Your task to perform on an android device: open app "Expedia: Hotels, Flights & Car" Image 0: 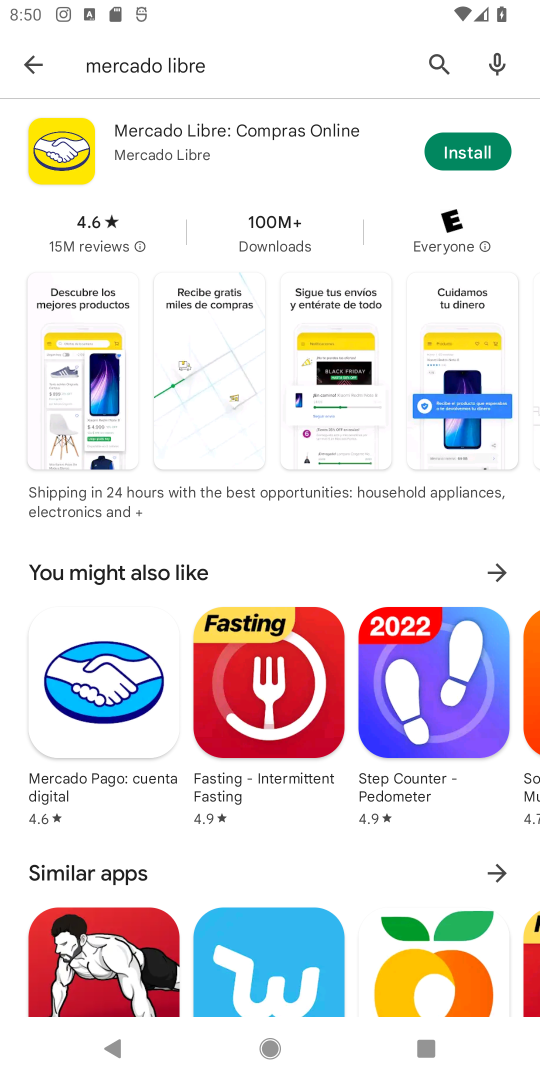
Step 0: click (432, 65)
Your task to perform on an android device: open app "Expedia: Hotels, Flights & Car" Image 1: 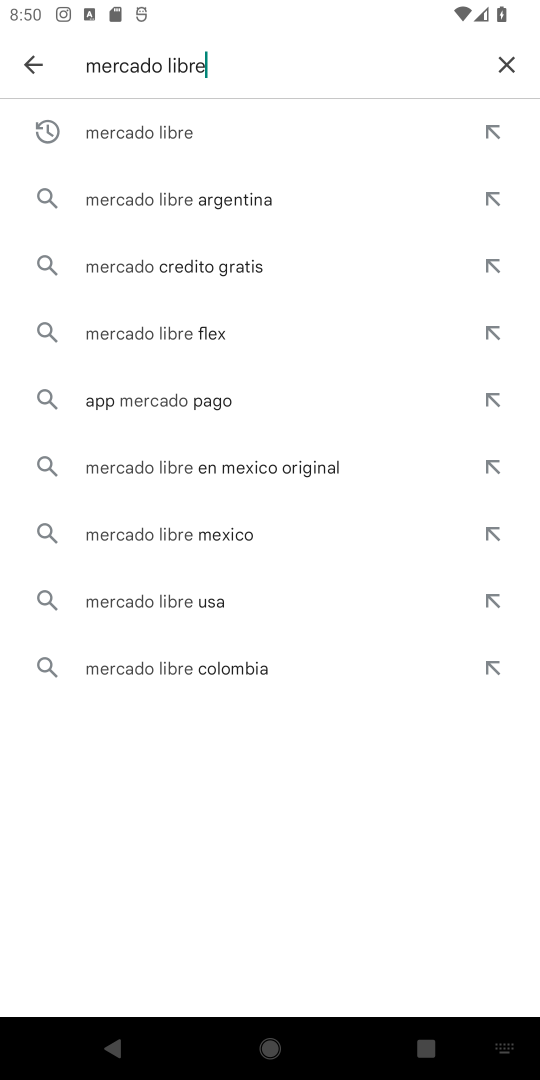
Step 1: click (497, 69)
Your task to perform on an android device: open app "Expedia: Hotels, Flights & Car" Image 2: 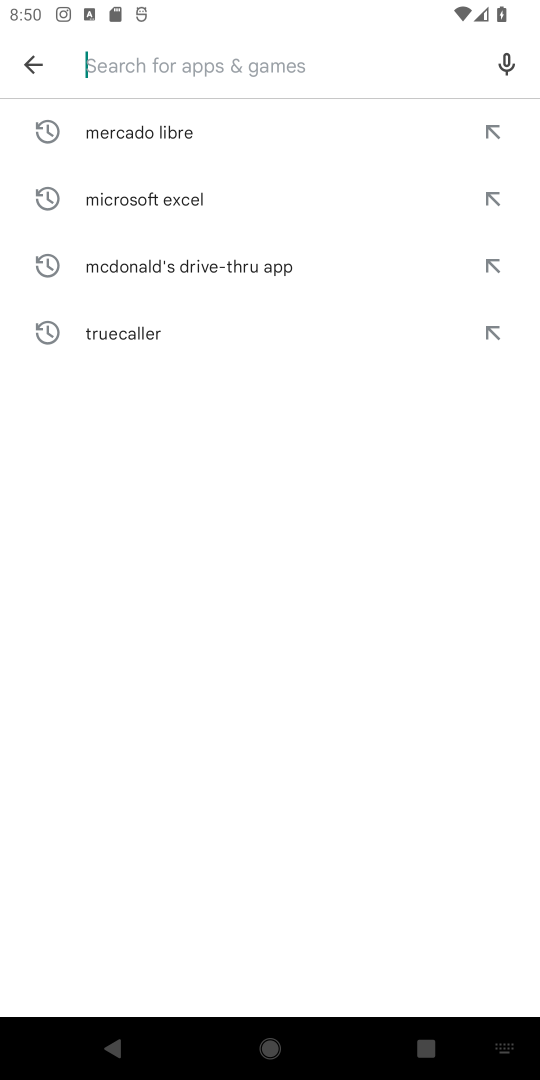
Step 2: type "Expedia: Hotels, Flights & Car"
Your task to perform on an android device: open app "Expedia: Hotels, Flights & Car" Image 3: 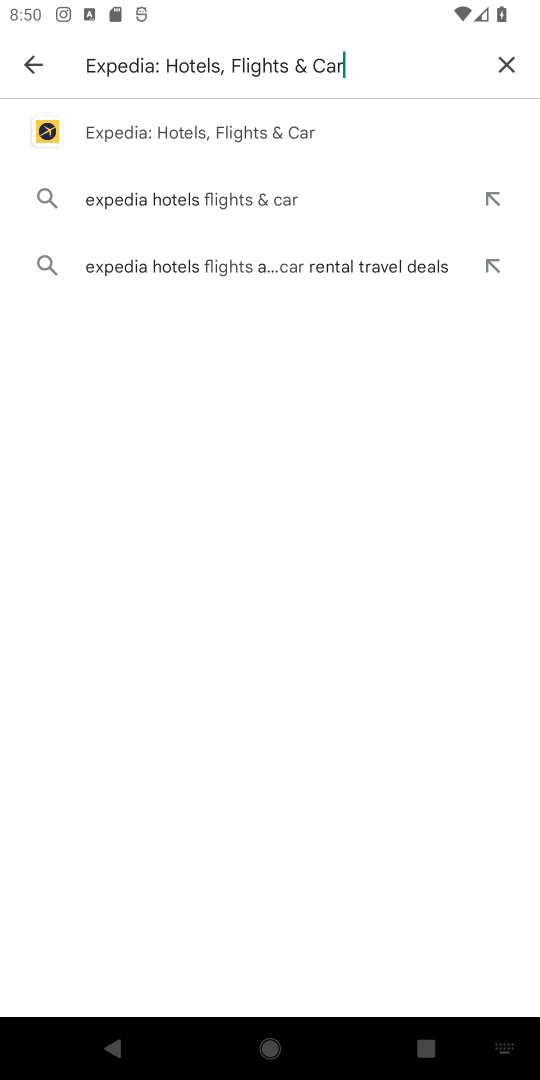
Step 3: click (172, 136)
Your task to perform on an android device: open app "Expedia: Hotels, Flights & Car" Image 4: 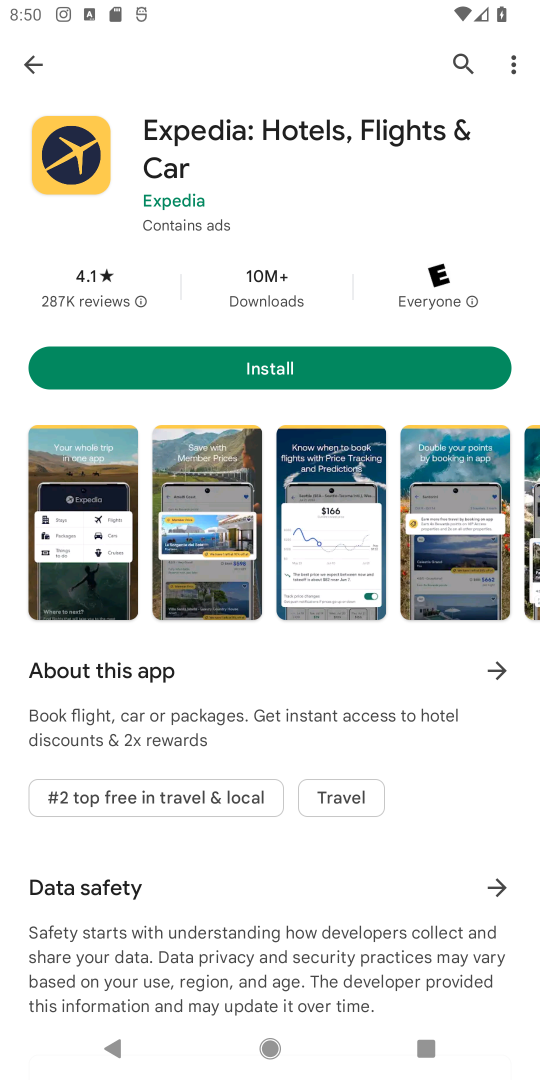
Step 4: task complete